Your task to perform on an android device: turn on translation in the chrome app Image 0: 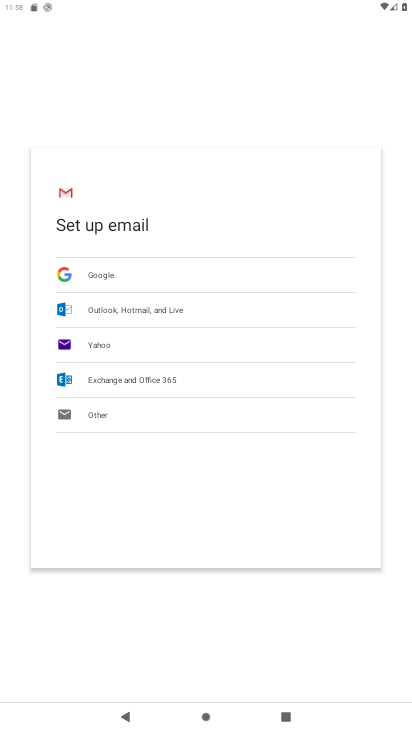
Step 0: press home button
Your task to perform on an android device: turn on translation in the chrome app Image 1: 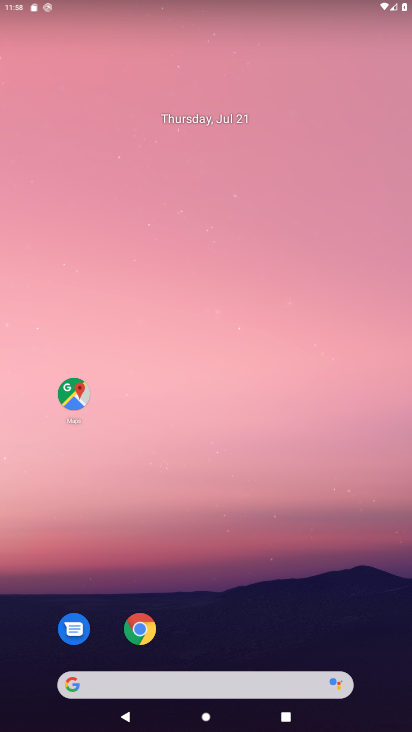
Step 1: click (141, 631)
Your task to perform on an android device: turn on translation in the chrome app Image 2: 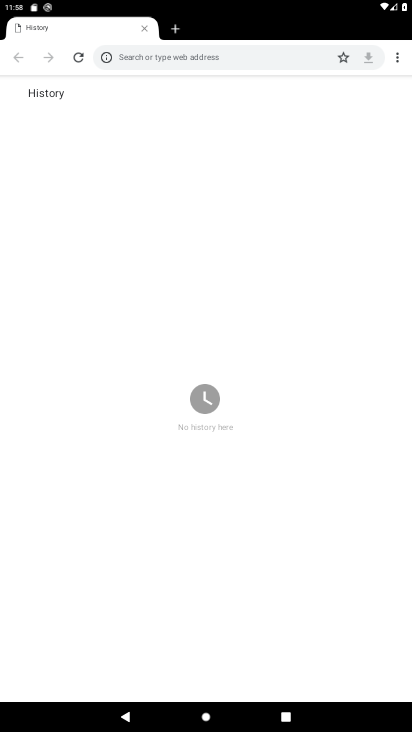
Step 2: click (398, 61)
Your task to perform on an android device: turn on translation in the chrome app Image 3: 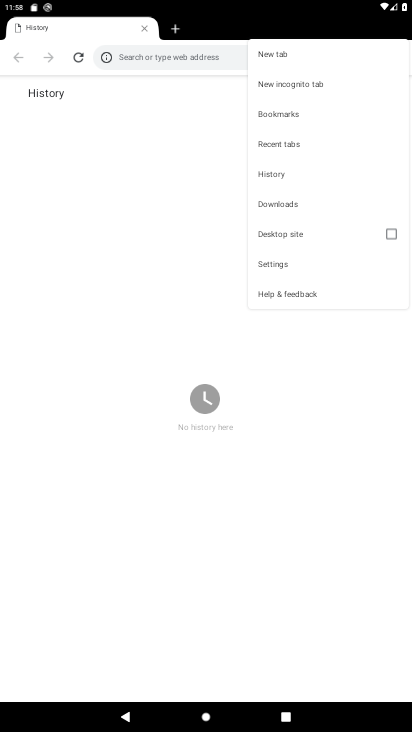
Step 3: click (278, 265)
Your task to perform on an android device: turn on translation in the chrome app Image 4: 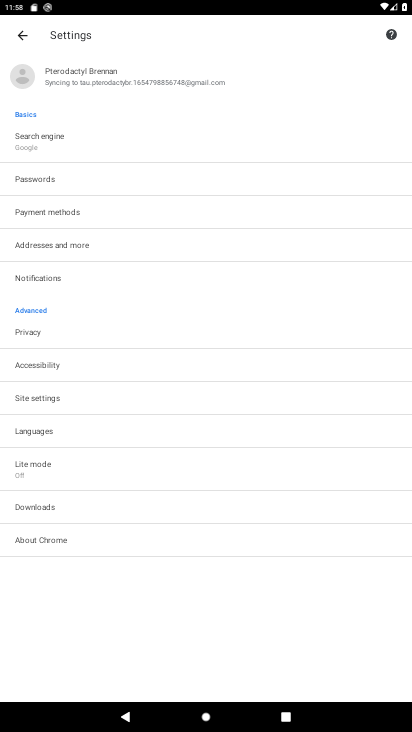
Step 4: click (36, 432)
Your task to perform on an android device: turn on translation in the chrome app Image 5: 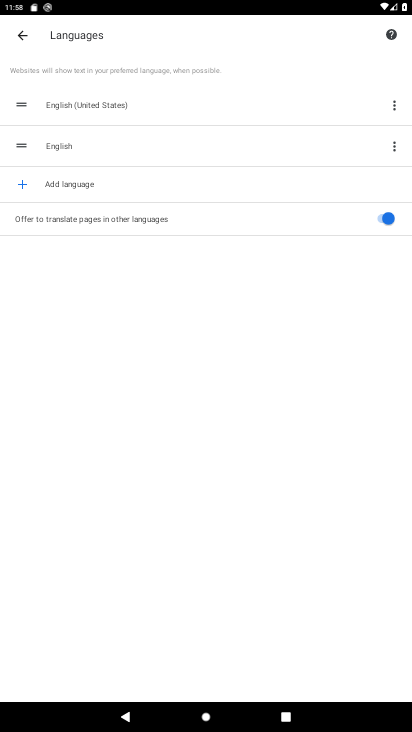
Step 5: task complete